Your task to perform on an android device: change timer sound Image 0: 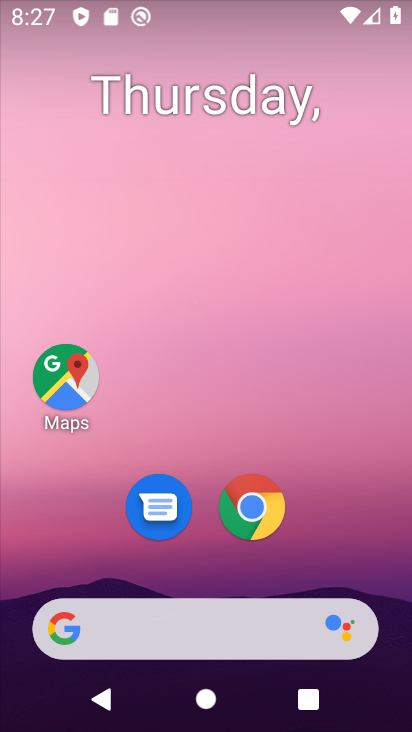
Step 0: drag from (199, 570) to (278, 33)
Your task to perform on an android device: change timer sound Image 1: 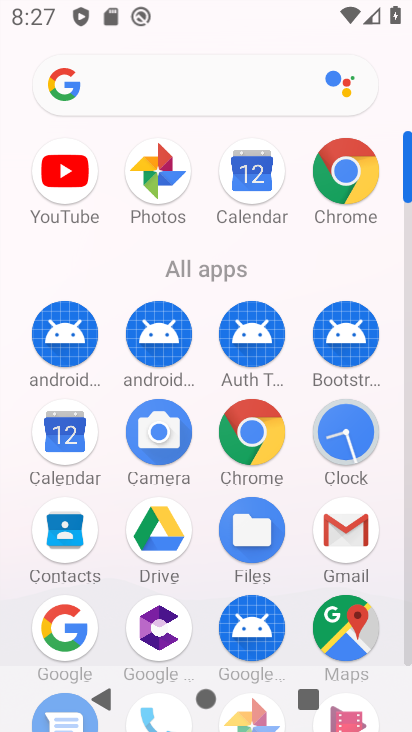
Step 1: drag from (202, 543) to (271, 98)
Your task to perform on an android device: change timer sound Image 2: 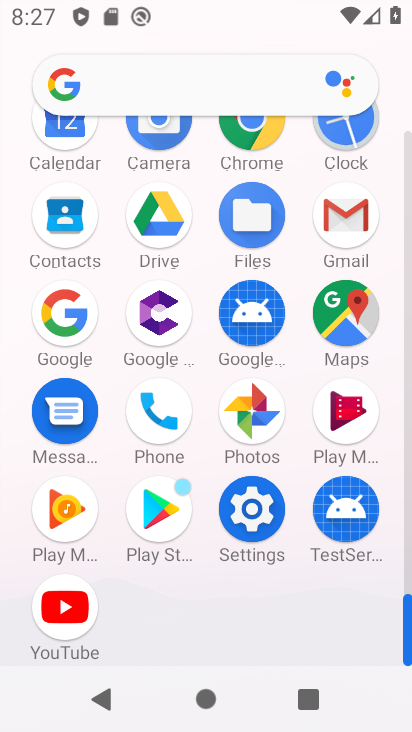
Step 2: click (248, 535)
Your task to perform on an android device: change timer sound Image 3: 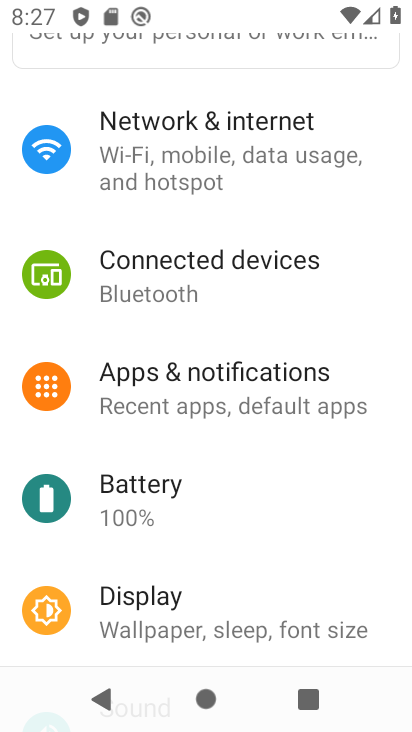
Step 3: press home button
Your task to perform on an android device: change timer sound Image 4: 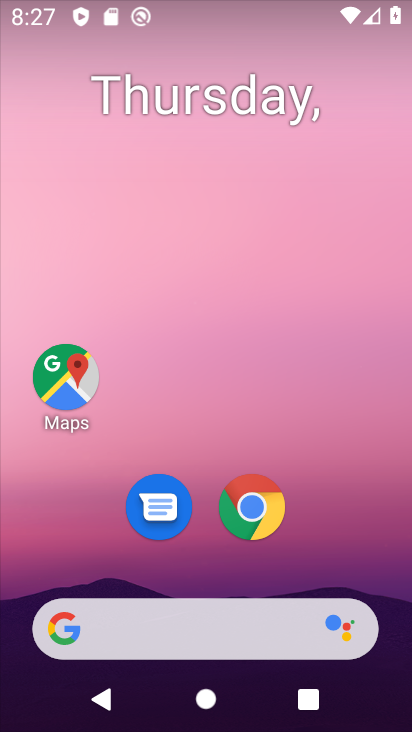
Step 4: drag from (196, 554) to (248, 122)
Your task to perform on an android device: change timer sound Image 5: 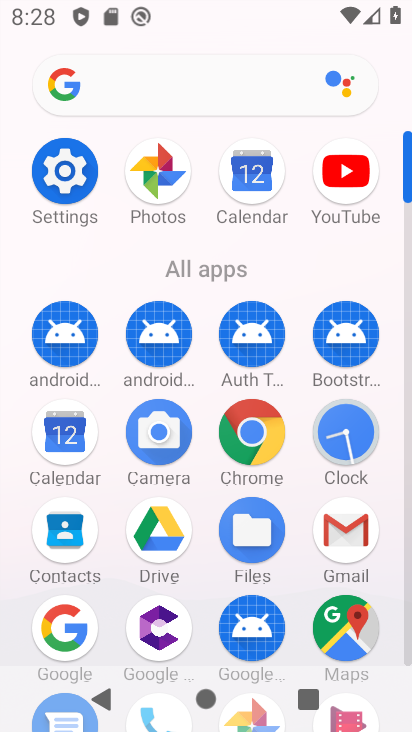
Step 5: drag from (198, 578) to (241, 285)
Your task to perform on an android device: change timer sound Image 6: 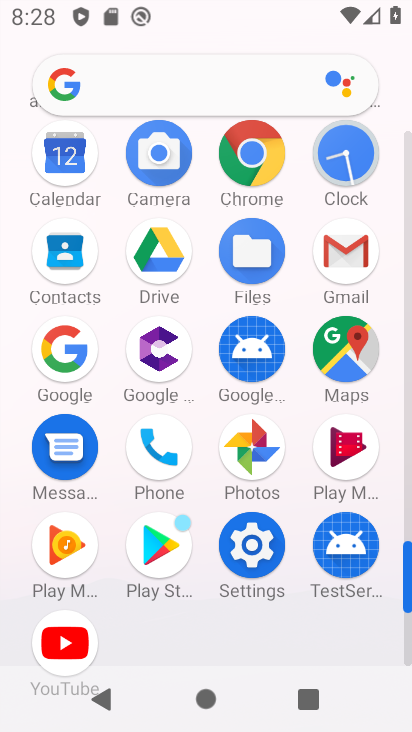
Step 6: click (333, 166)
Your task to perform on an android device: change timer sound Image 7: 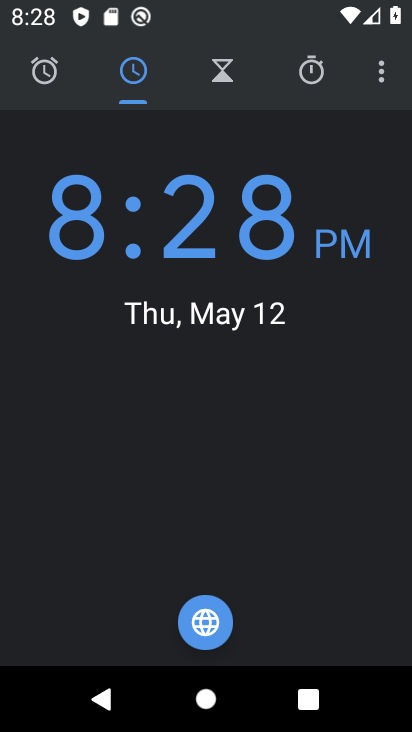
Step 7: click (382, 80)
Your task to perform on an android device: change timer sound Image 8: 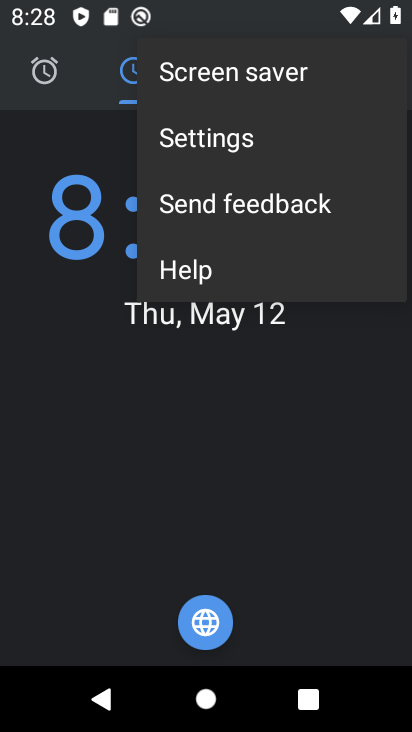
Step 8: click (219, 146)
Your task to perform on an android device: change timer sound Image 9: 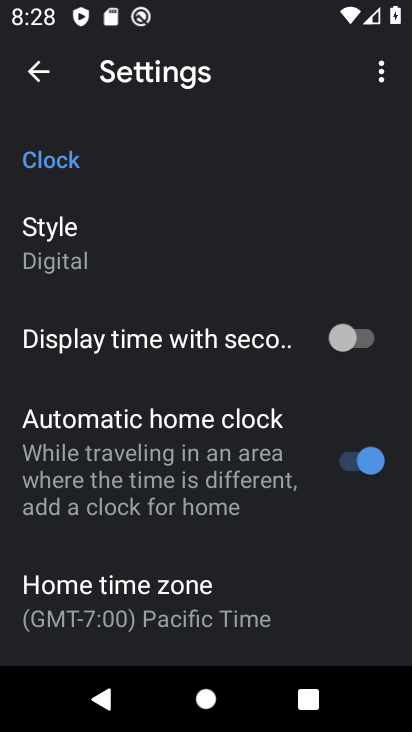
Step 9: drag from (135, 451) to (185, 210)
Your task to perform on an android device: change timer sound Image 10: 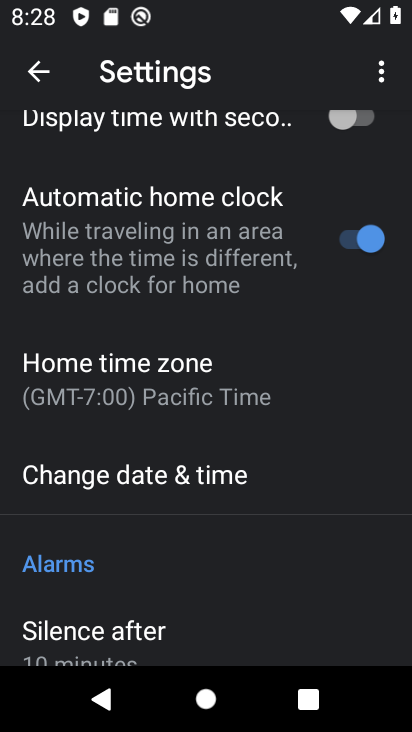
Step 10: drag from (128, 568) to (193, 277)
Your task to perform on an android device: change timer sound Image 11: 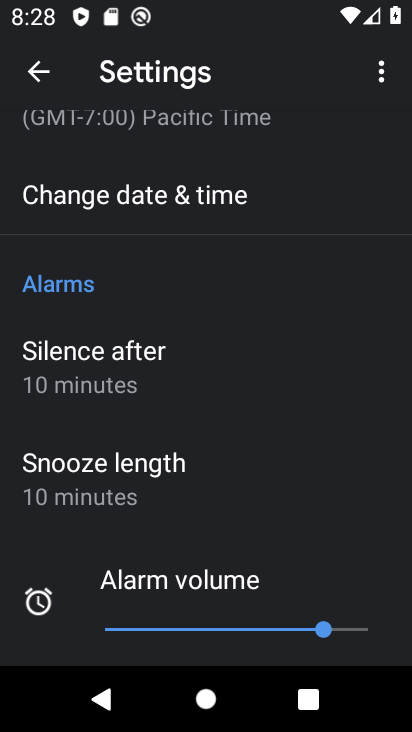
Step 11: drag from (123, 523) to (227, 101)
Your task to perform on an android device: change timer sound Image 12: 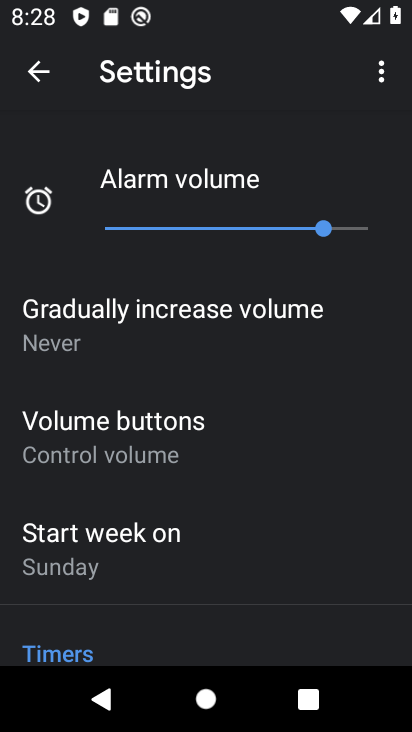
Step 12: drag from (139, 514) to (161, 188)
Your task to perform on an android device: change timer sound Image 13: 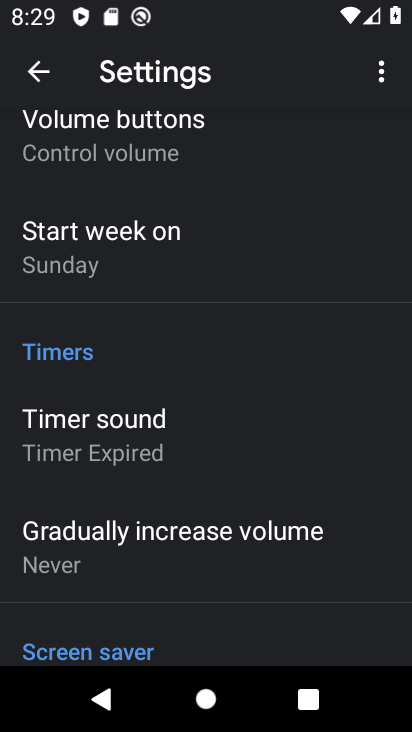
Step 13: drag from (132, 507) to (169, 320)
Your task to perform on an android device: change timer sound Image 14: 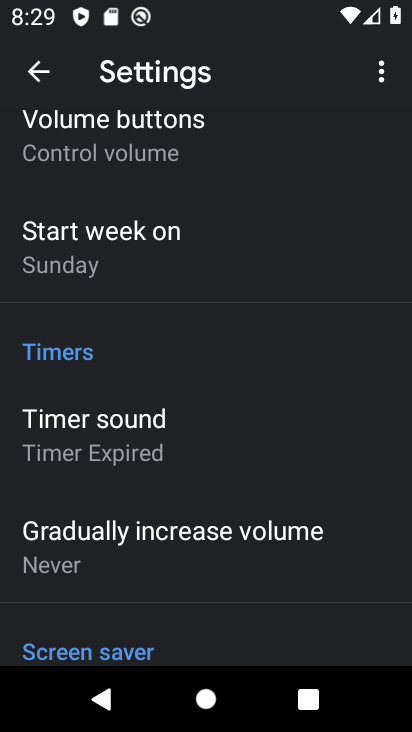
Step 14: click (105, 421)
Your task to perform on an android device: change timer sound Image 15: 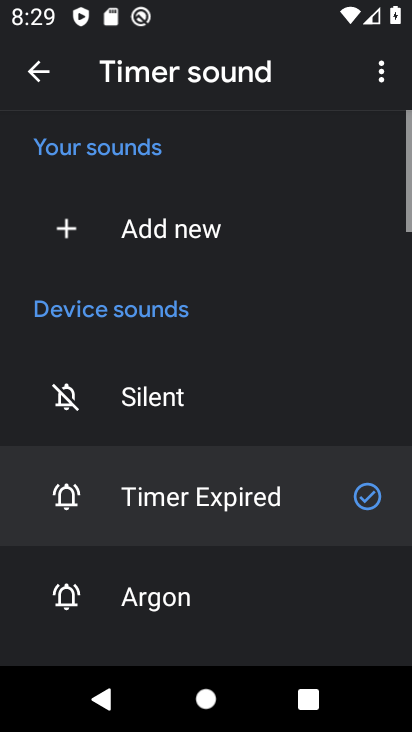
Step 15: drag from (137, 563) to (156, 329)
Your task to perform on an android device: change timer sound Image 16: 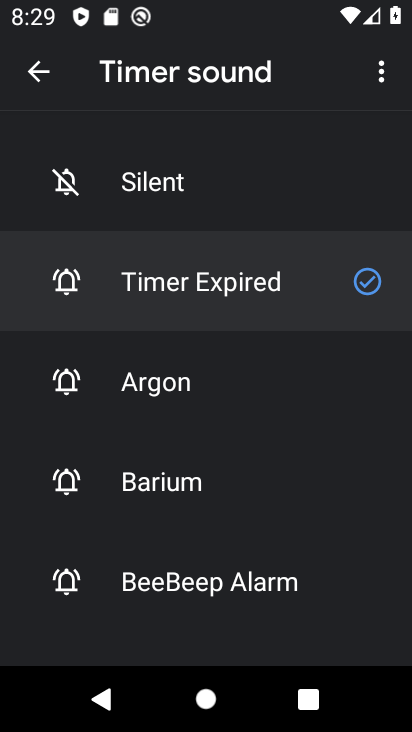
Step 16: click (162, 476)
Your task to perform on an android device: change timer sound Image 17: 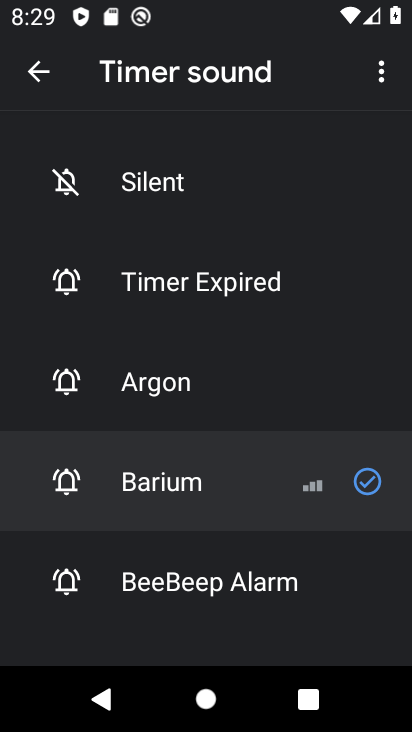
Step 17: task complete